Your task to perform on an android device: turn off improve location accuracy Image 0: 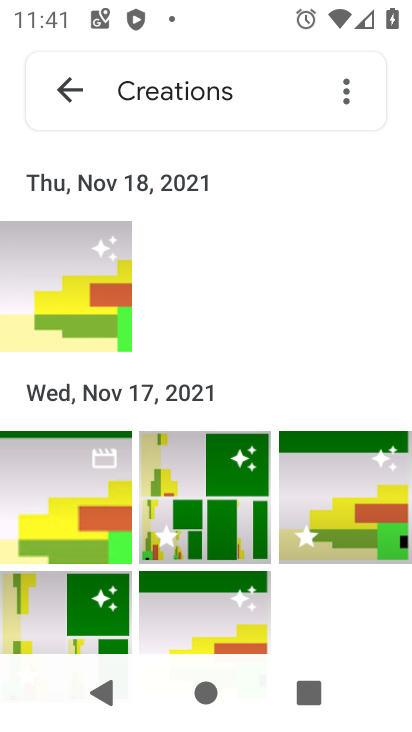
Step 0: press home button
Your task to perform on an android device: turn off improve location accuracy Image 1: 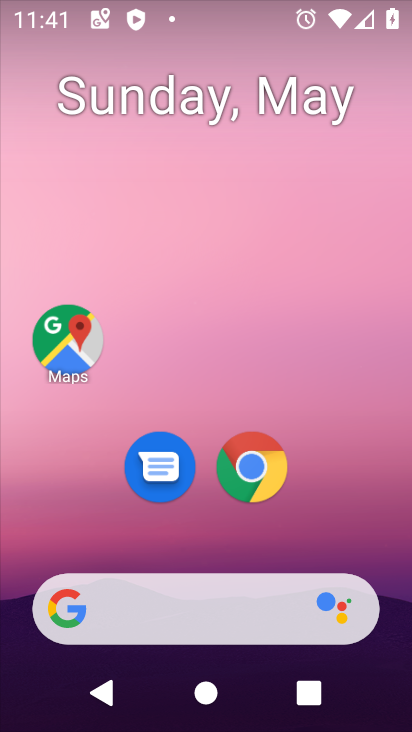
Step 1: drag from (387, 558) to (355, 1)
Your task to perform on an android device: turn off improve location accuracy Image 2: 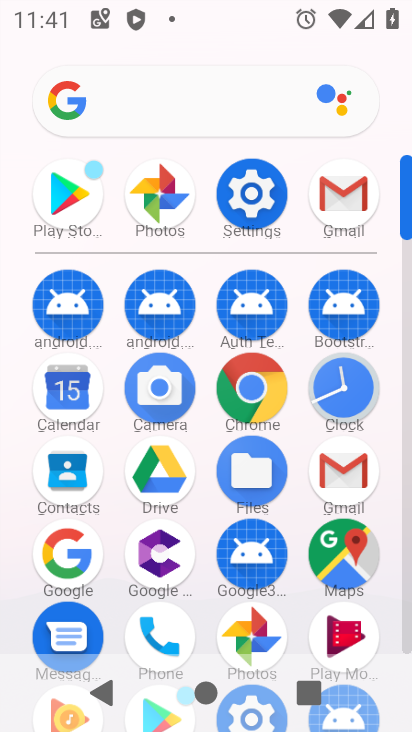
Step 2: click (252, 200)
Your task to perform on an android device: turn off improve location accuracy Image 3: 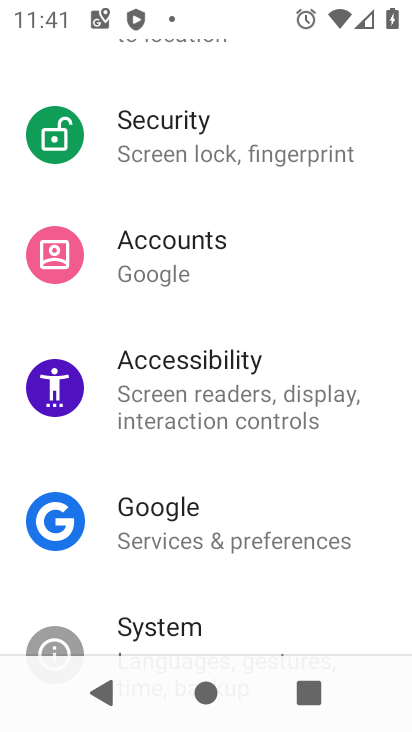
Step 3: drag from (283, 283) to (281, 590)
Your task to perform on an android device: turn off improve location accuracy Image 4: 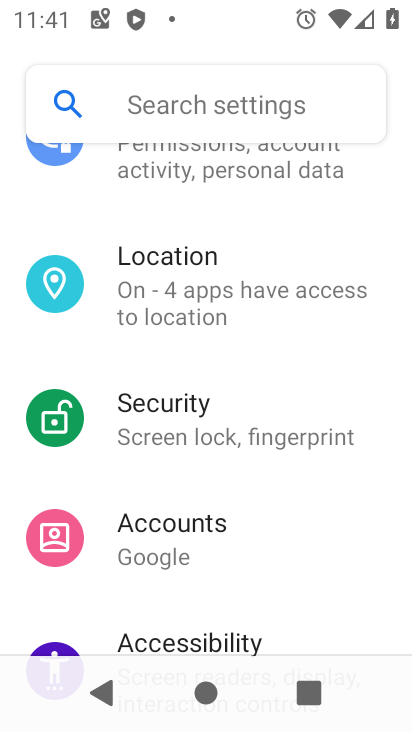
Step 4: click (188, 302)
Your task to perform on an android device: turn off improve location accuracy Image 5: 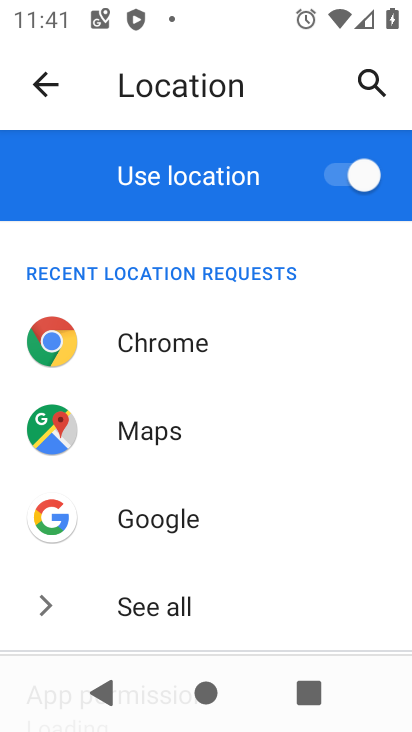
Step 5: drag from (266, 451) to (238, 130)
Your task to perform on an android device: turn off improve location accuracy Image 6: 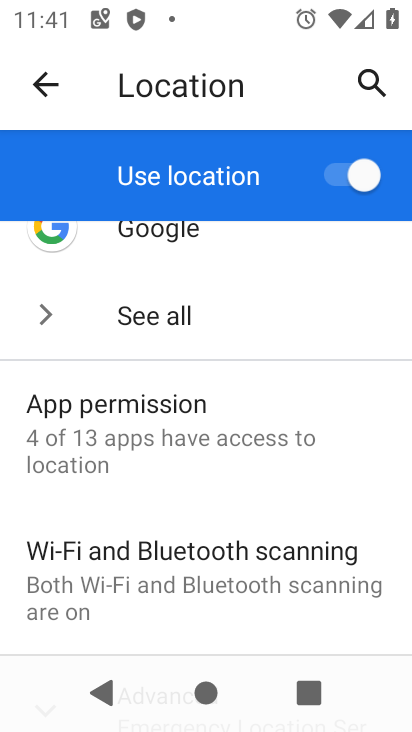
Step 6: drag from (221, 507) to (215, 114)
Your task to perform on an android device: turn off improve location accuracy Image 7: 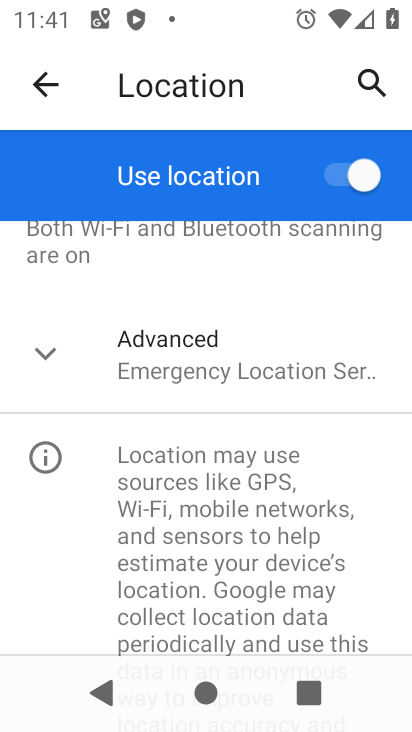
Step 7: click (43, 362)
Your task to perform on an android device: turn off improve location accuracy Image 8: 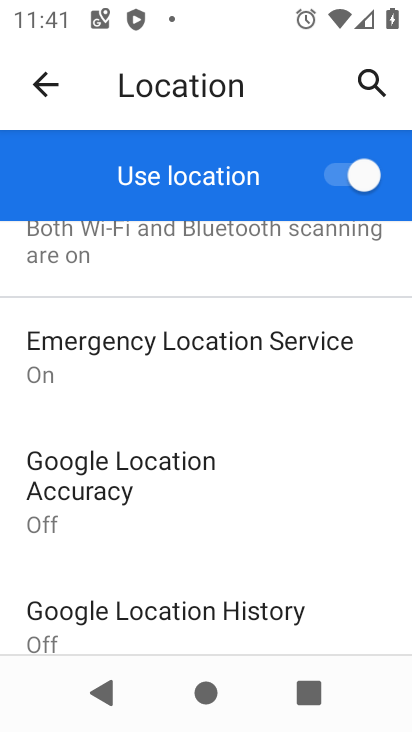
Step 8: click (96, 492)
Your task to perform on an android device: turn off improve location accuracy Image 9: 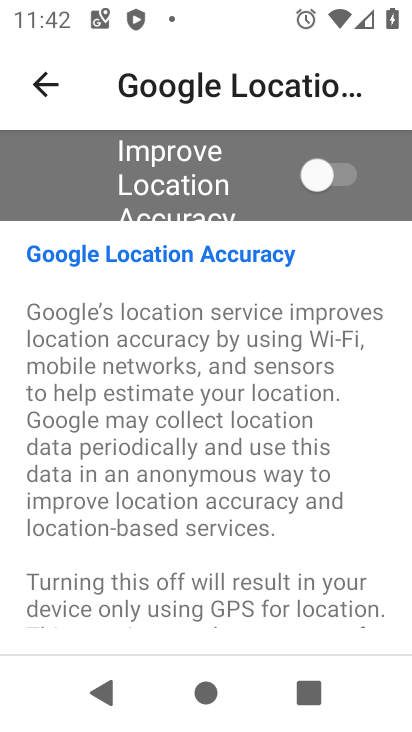
Step 9: task complete